Your task to perform on an android device: Go to privacy settings Image 0: 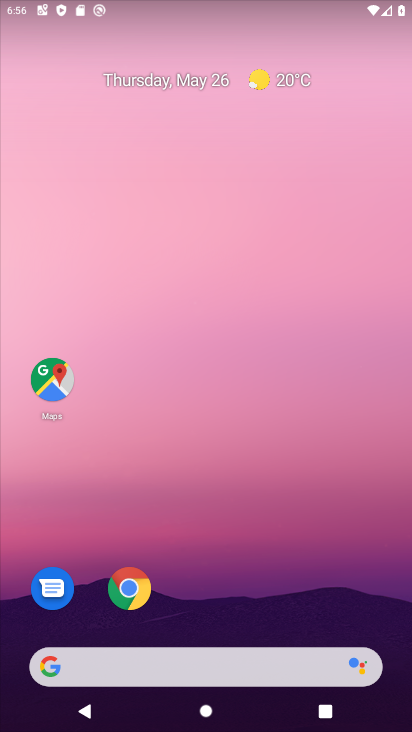
Step 0: drag from (361, 595) to (308, 57)
Your task to perform on an android device: Go to privacy settings Image 1: 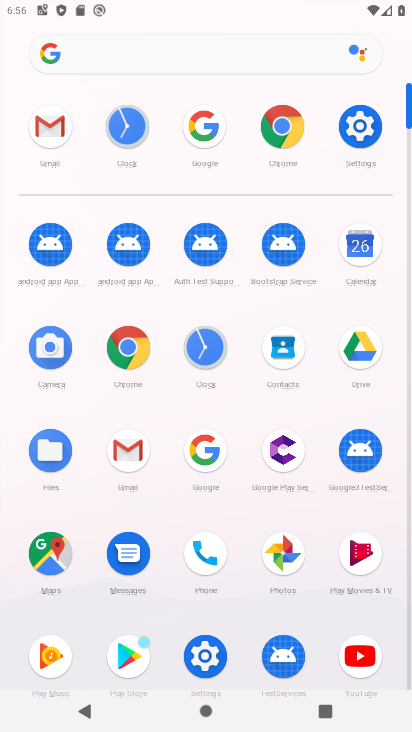
Step 1: click (365, 121)
Your task to perform on an android device: Go to privacy settings Image 2: 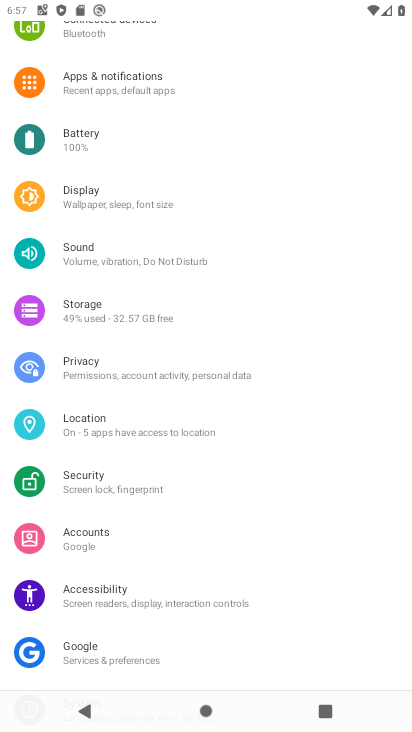
Step 2: click (89, 361)
Your task to perform on an android device: Go to privacy settings Image 3: 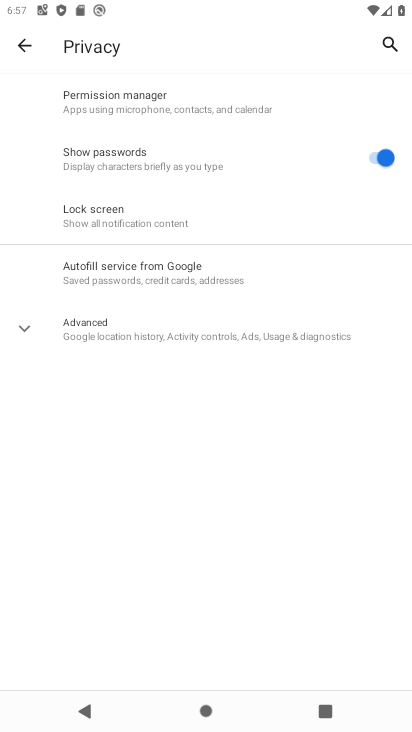
Step 3: task complete